Your task to perform on an android device: Is it going to rain tomorrow? Image 0: 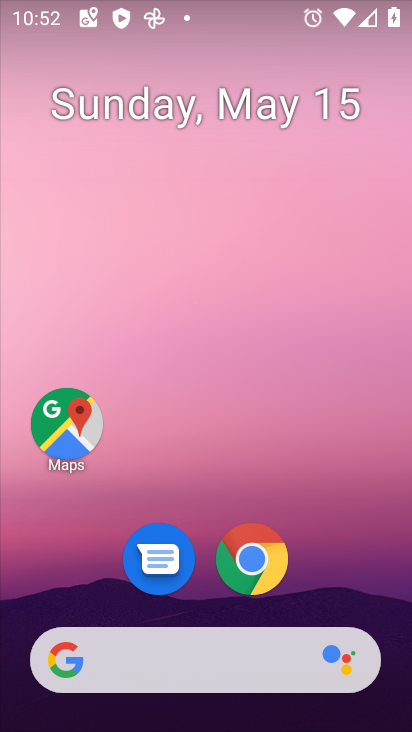
Step 0: click (171, 654)
Your task to perform on an android device: Is it going to rain tomorrow? Image 1: 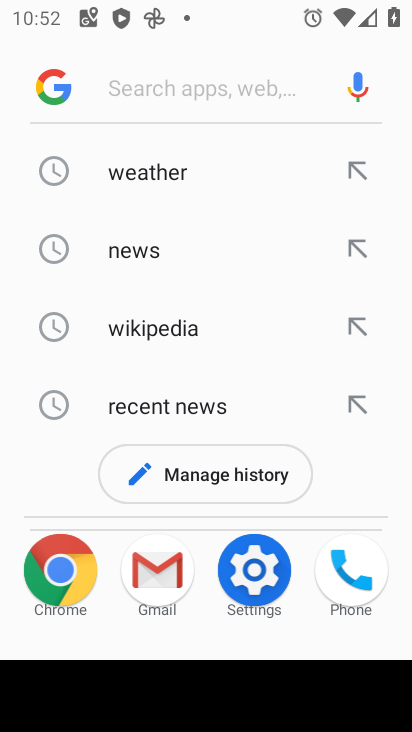
Step 1: click (165, 187)
Your task to perform on an android device: Is it going to rain tomorrow? Image 2: 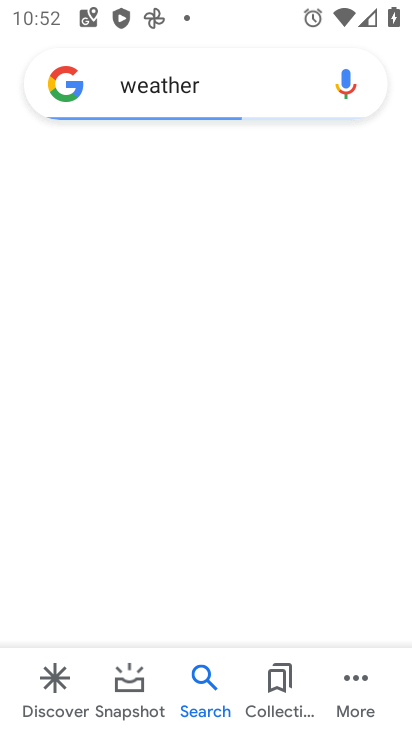
Step 2: task complete